Your task to perform on an android device: stop showing notifications on the lock screen Image 0: 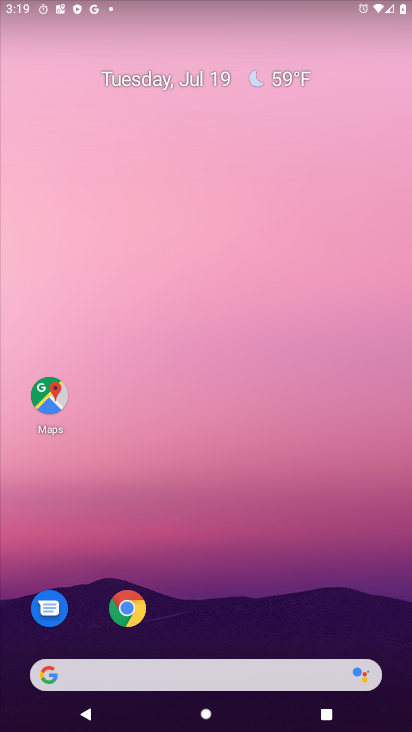
Step 0: drag from (346, 624) to (283, 107)
Your task to perform on an android device: stop showing notifications on the lock screen Image 1: 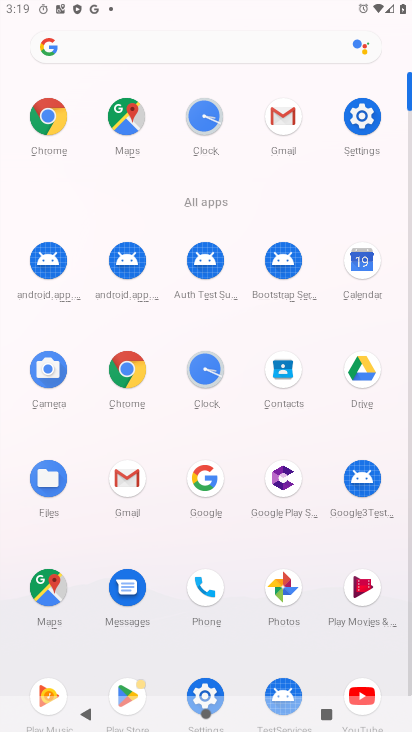
Step 1: click (208, 686)
Your task to perform on an android device: stop showing notifications on the lock screen Image 2: 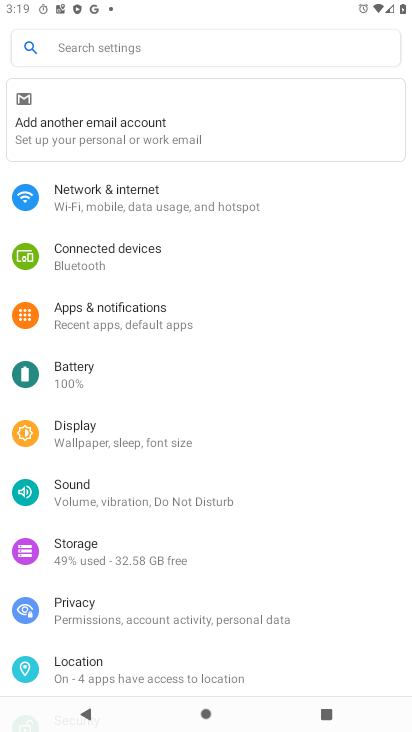
Step 2: click (220, 314)
Your task to perform on an android device: stop showing notifications on the lock screen Image 3: 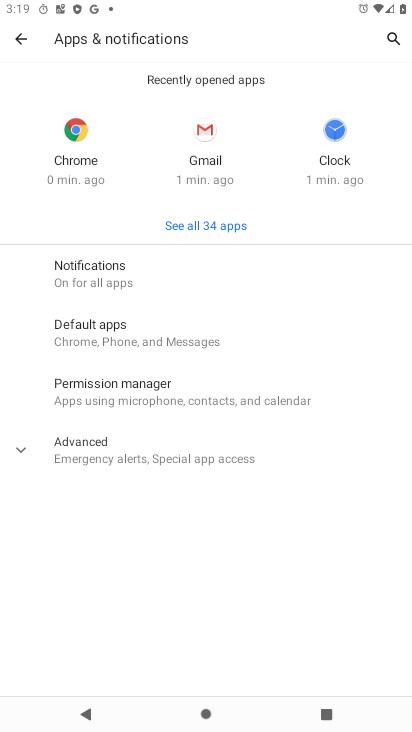
Step 3: click (189, 274)
Your task to perform on an android device: stop showing notifications on the lock screen Image 4: 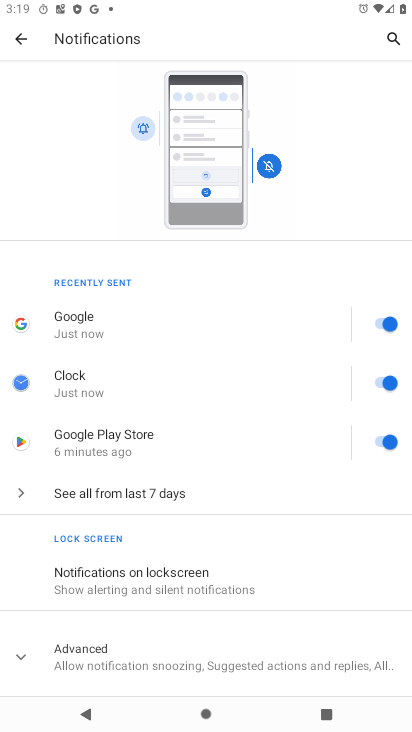
Step 4: click (201, 577)
Your task to perform on an android device: stop showing notifications on the lock screen Image 5: 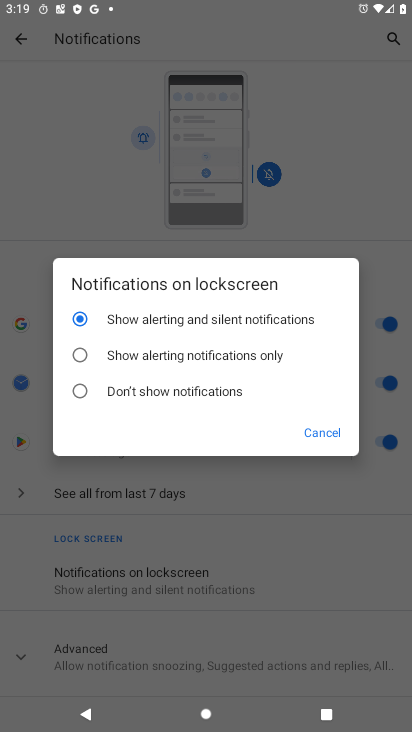
Step 5: click (195, 397)
Your task to perform on an android device: stop showing notifications on the lock screen Image 6: 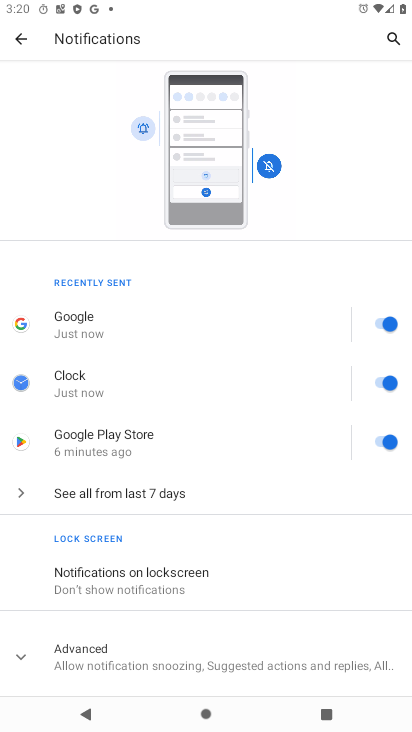
Step 6: task complete